Your task to perform on an android device: Open privacy settings Image 0: 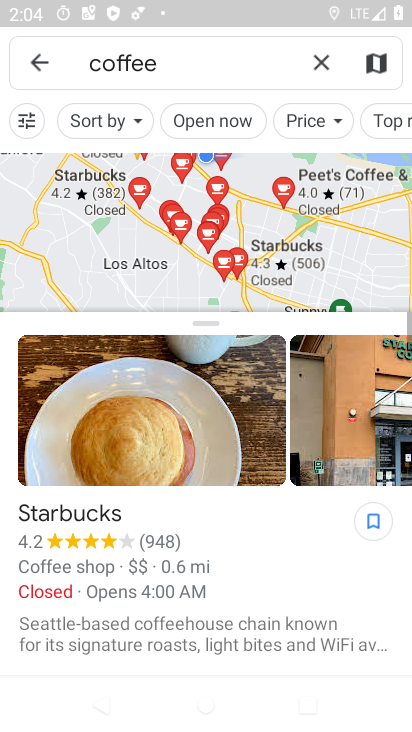
Step 0: press home button
Your task to perform on an android device: Open privacy settings Image 1: 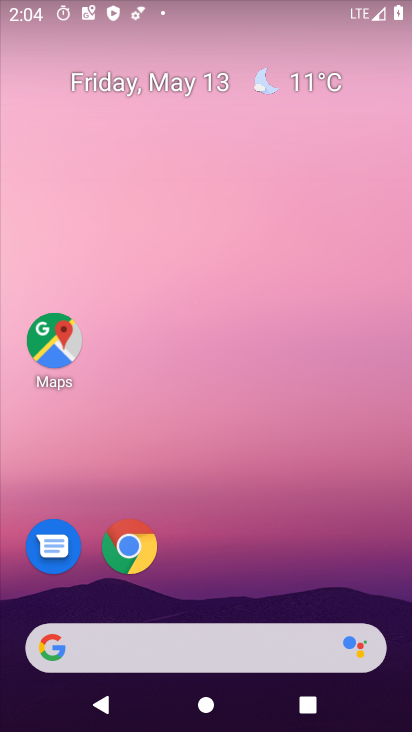
Step 1: drag from (229, 593) to (283, 212)
Your task to perform on an android device: Open privacy settings Image 2: 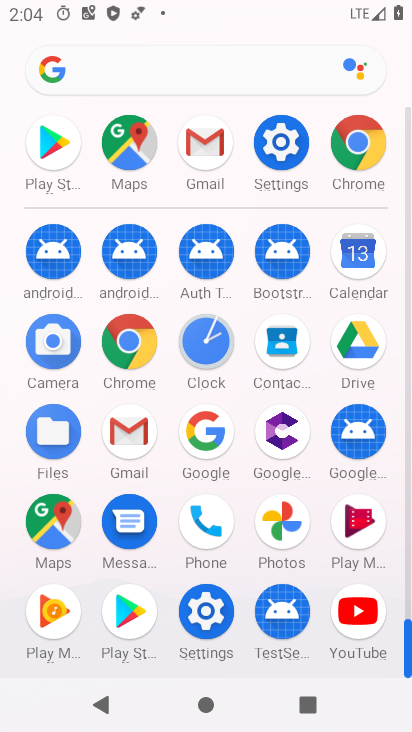
Step 2: click (277, 164)
Your task to perform on an android device: Open privacy settings Image 3: 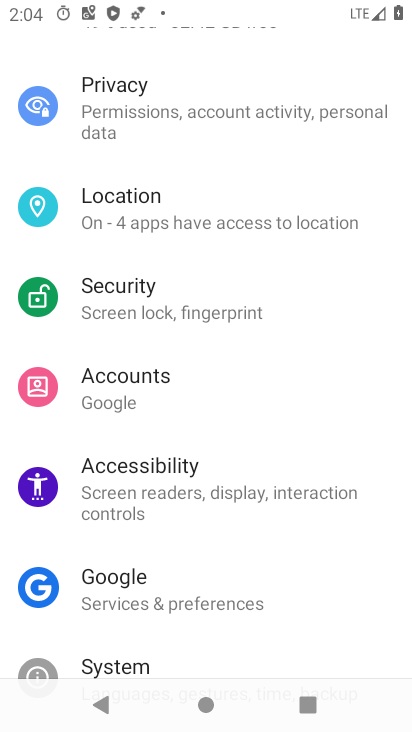
Step 3: drag from (227, 520) to (253, 626)
Your task to perform on an android device: Open privacy settings Image 4: 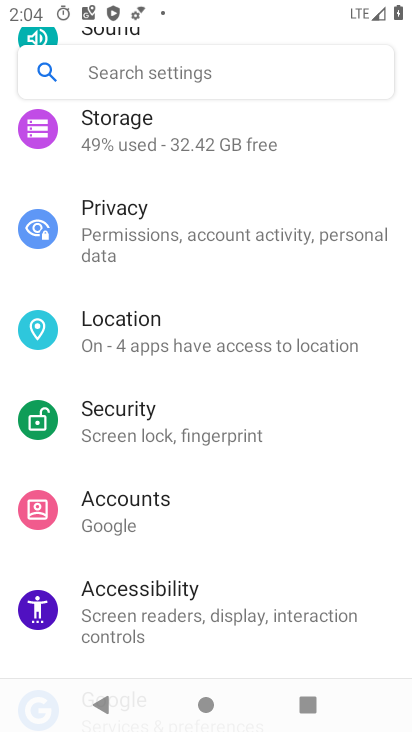
Step 4: click (253, 223)
Your task to perform on an android device: Open privacy settings Image 5: 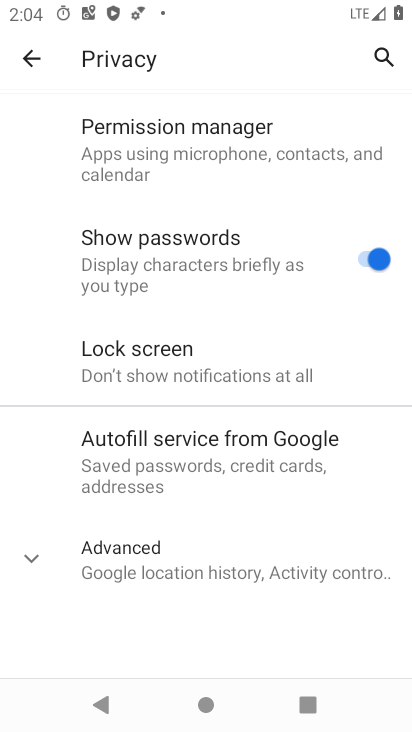
Step 5: task complete